Your task to perform on an android device: check google app version Image 0: 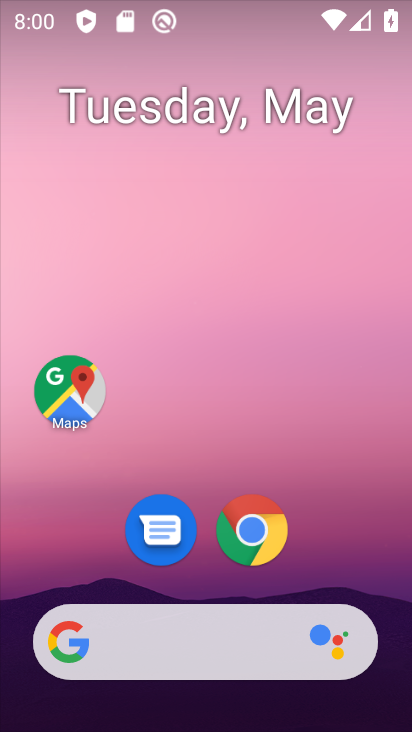
Step 0: drag from (207, 525) to (251, 223)
Your task to perform on an android device: check google app version Image 1: 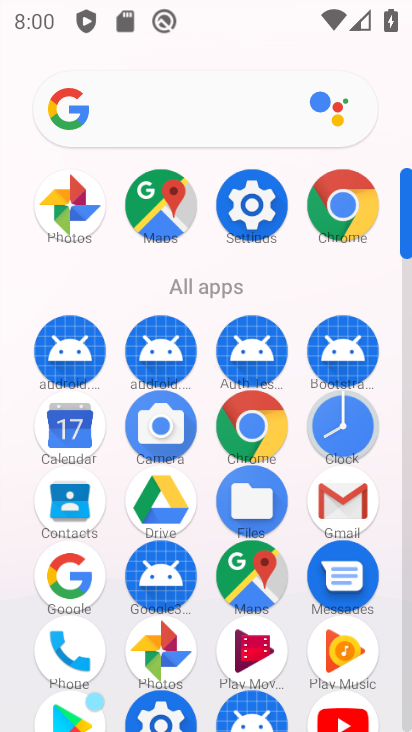
Step 1: click (75, 577)
Your task to perform on an android device: check google app version Image 2: 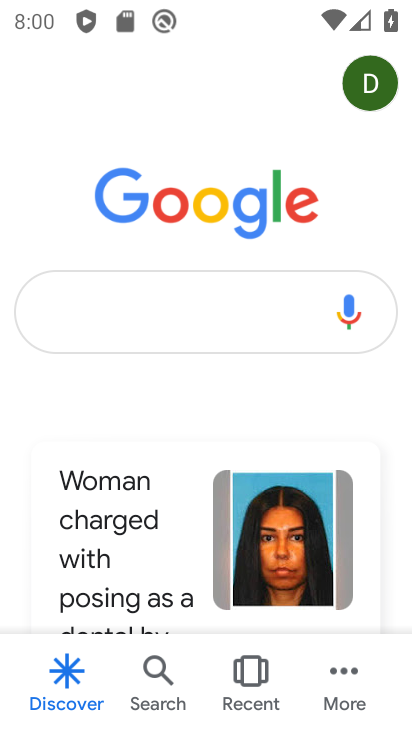
Step 2: click (384, 76)
Your task to perform on an android device: check google app version Image 3: 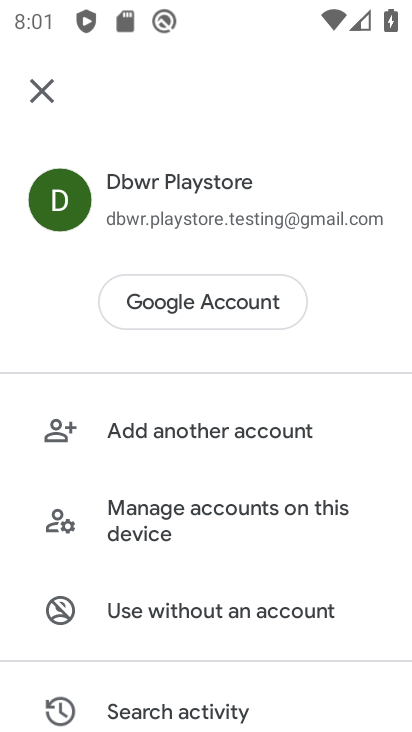
Step 3: drag from (201, 605) to (219, 179)
Your task to perform on an android device: check google app version Image 4: 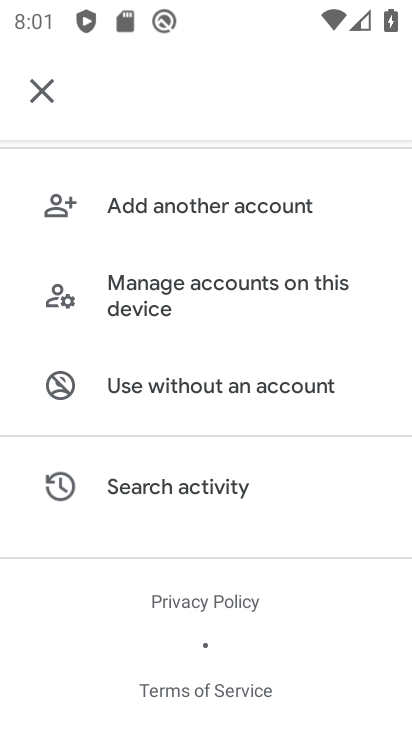
Step 4: drag from (213, 230) to (226, 585)
Your task to perform on an android device: check google app version Image 5: 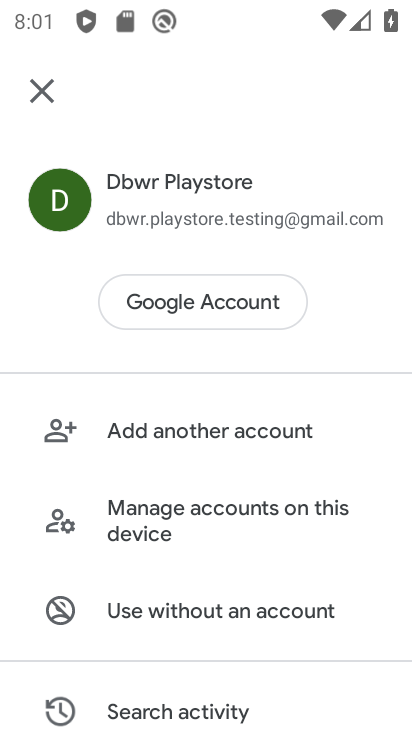
Step 5: click (41, 89)
Your task to perform on an android device: check google app version Image 6: 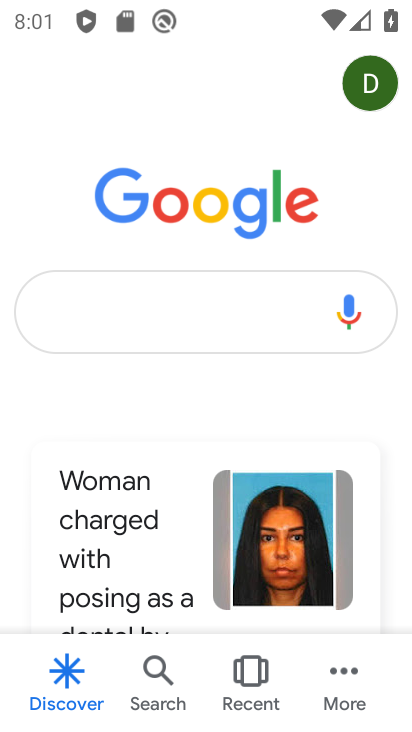
Step 6: click (348, 683)
Your task to perform on an android device: check google app version Image 7: 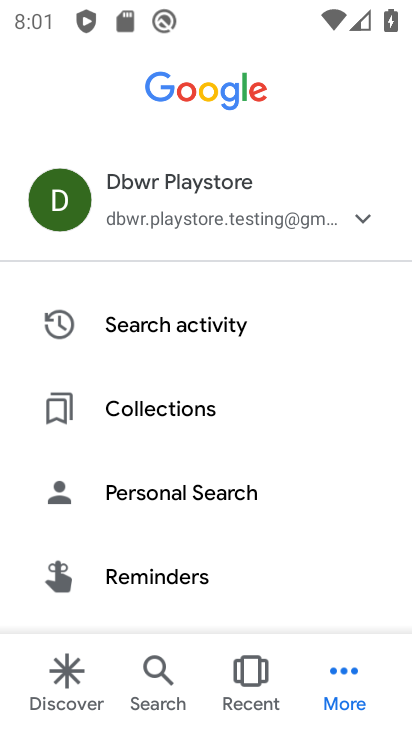
Step 7: drag from (245, 603) to (285, 111)
Your task to perform on an android device: check google app version Image 8: 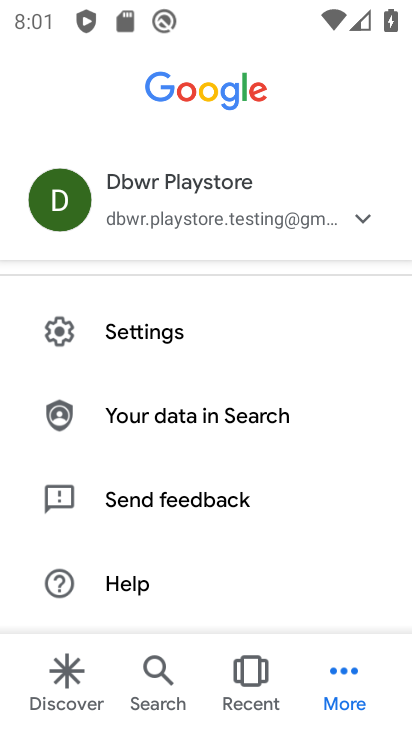
Step 8: click (186, 331)
Your task to perform on an android device: check google app version Image 9: 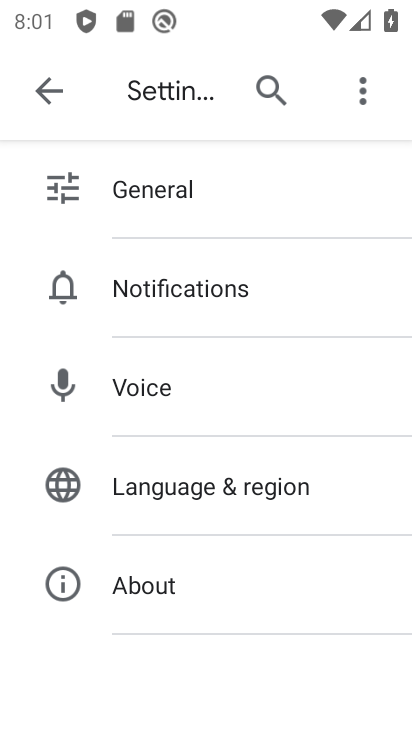
Step 9: click (171, 607)
Your task to perform on an android device: check google app version Image 10: 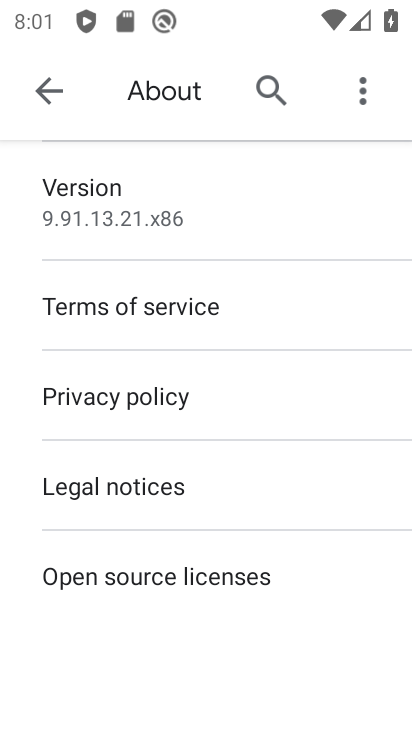
Step 10: click (202, 174)
Your task to perform on an android device: check google app version Image 11: 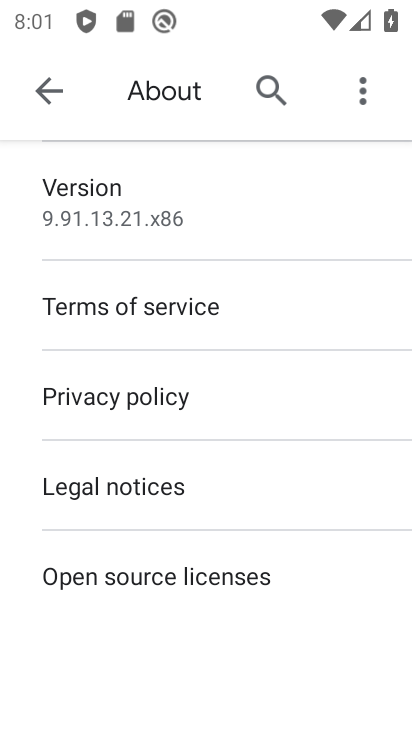
Step 11: task complete